Your task to perform on an android device: Go to accessibility settings Image 0: 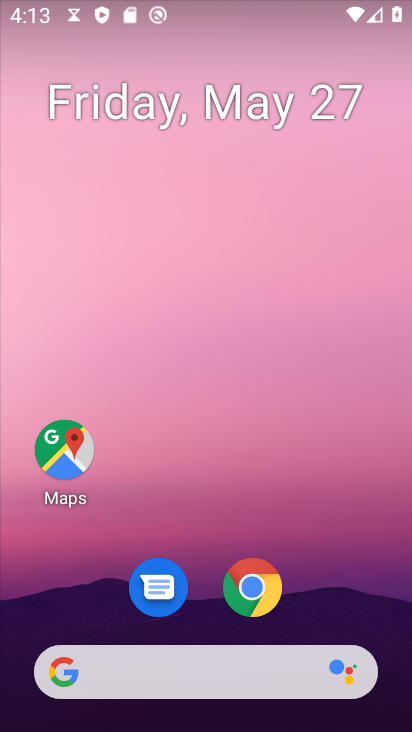
Step 0: drag from (234, 218) to (212, 22)
Your task to perform on an android device: Go to accessibility settings Image 1: 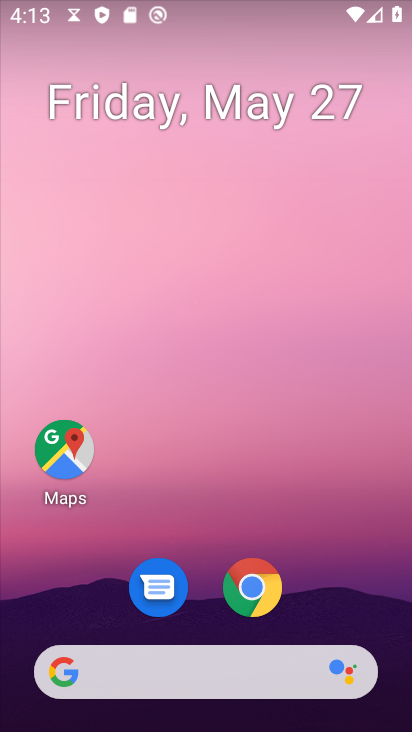
Step 1: drag from (357, 514) to (218, 14)
Your task to perform on an android device: Go to accessibility settings Image 2: 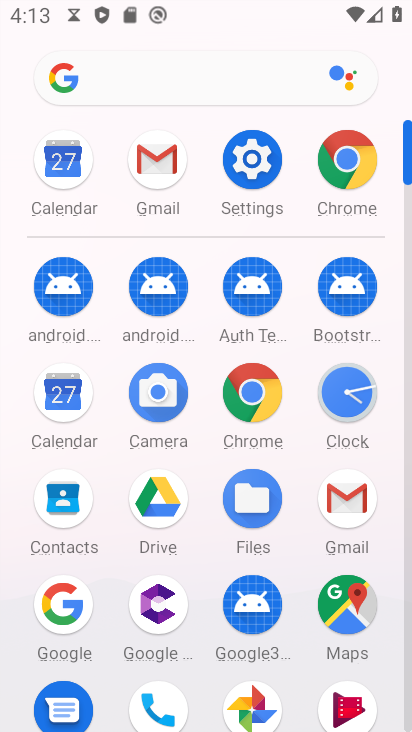
Step 2: drag from (11, 550) to (9, 170)
Your task to perform on an android device: Go to accessibility settings Image 3: 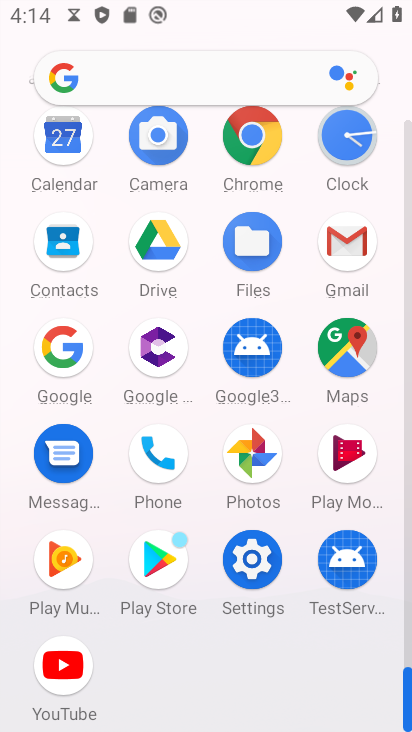
Step 3: click (248, 556)
Your task to perform on an android device: Go to accessibility settings Image 4: 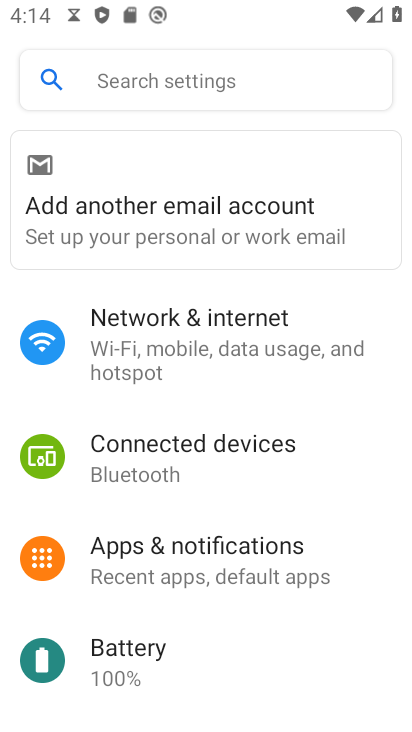
Step 4: drag from (311, 594) to (316, 278)
Your task to perform on an android device: Go to accessibility settings Image 5: 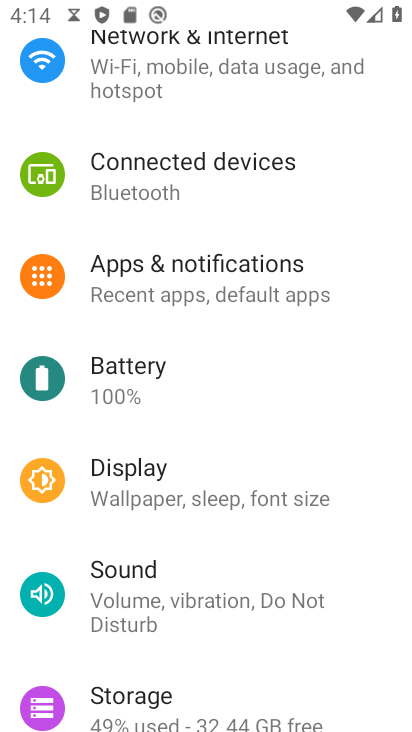
Step 5: drag from (270, 576) to (265, 249)
Your task to perform on an android device: Go to accessibility settings Image 6: 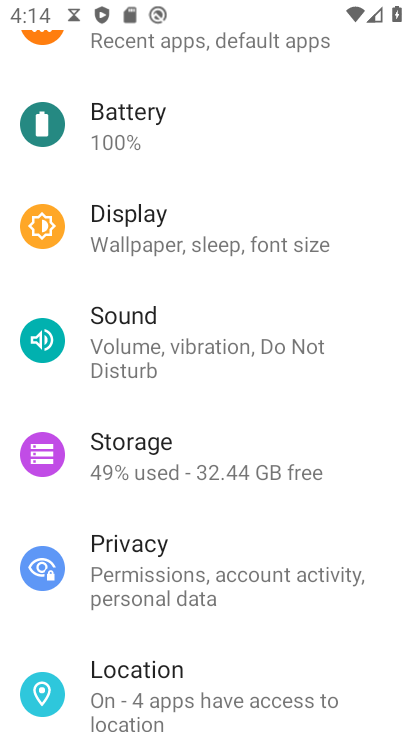
Step 6: drag from (265, 593) to (271, 251)
Your task to perform on an android device: Go to accessibility settings Image 7: 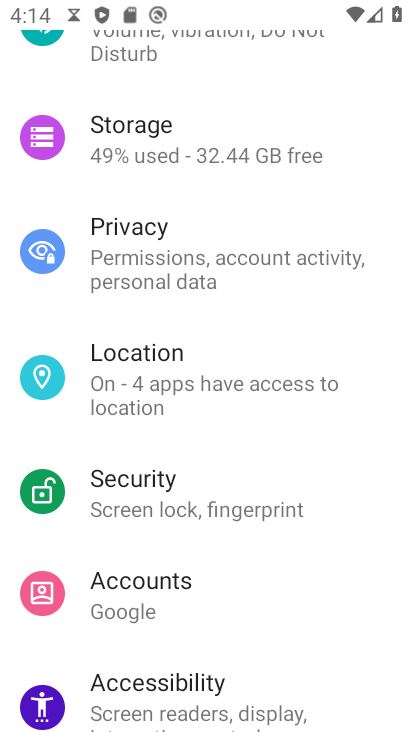
Step 7: click (194, 674)
Your task to perform on an android device: Go to accessibility settings Image 8: 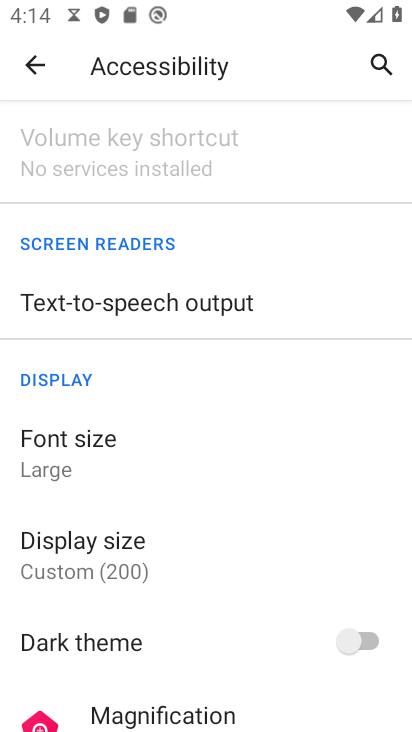
Step 8: task complete